Your task to perform on an android device: What is the recent news? Image 0: 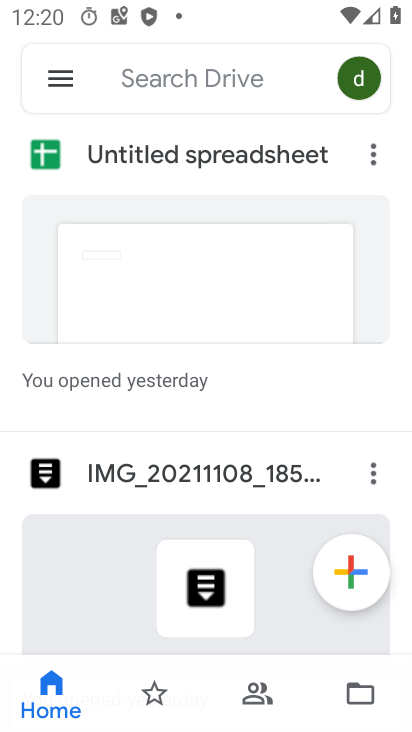
Step 0: press home button
Your task to perform on an android device: What is the recent news? Image 1: 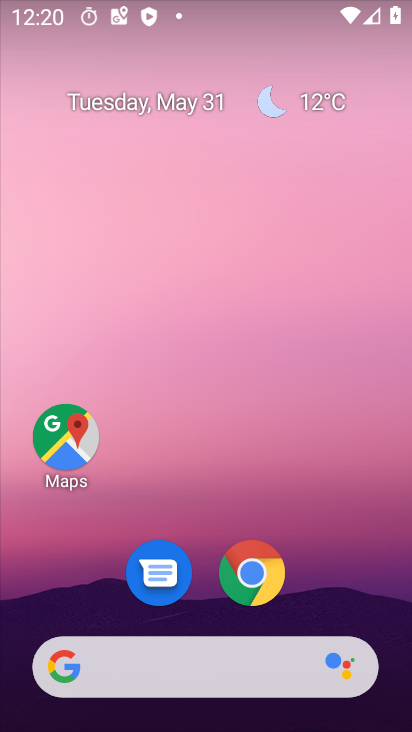
Step 1: drag from (396, 528) to (343, 71)
Your task to perform on an android device: What is the recent news? Image 2: 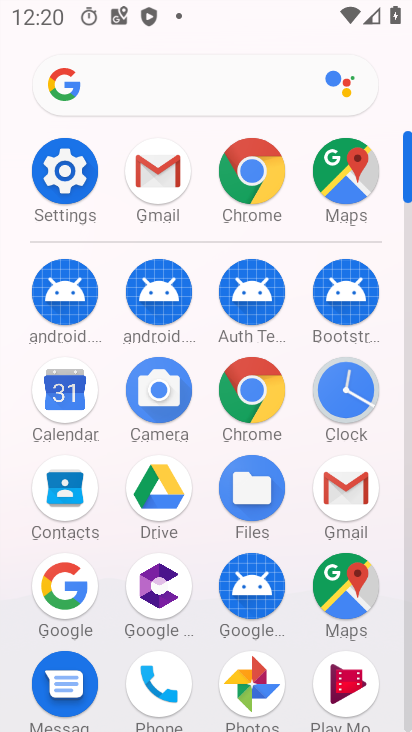
Step 2: click (257, 189)
Your task to perform on an android device: What is the recent news? Image 3: 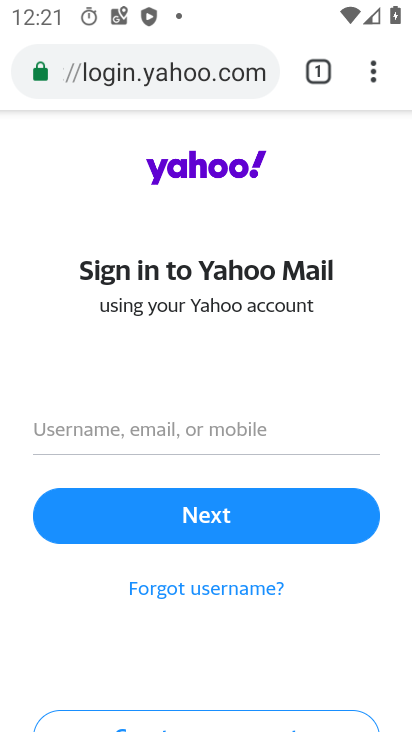
Step 3: task complete